Your task to perform on an android device: Open Google Maps and go to "Timeline" Image 0: 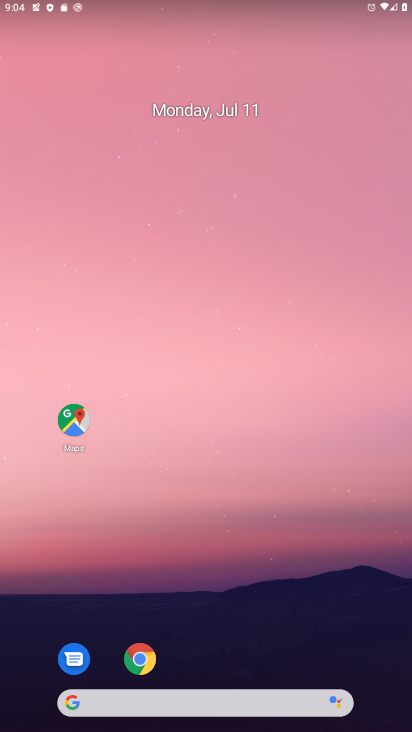
Step 0: click (73, 417)
Your task to perform on an android device: Open Google Maps and go to "Timeline" Image 1: 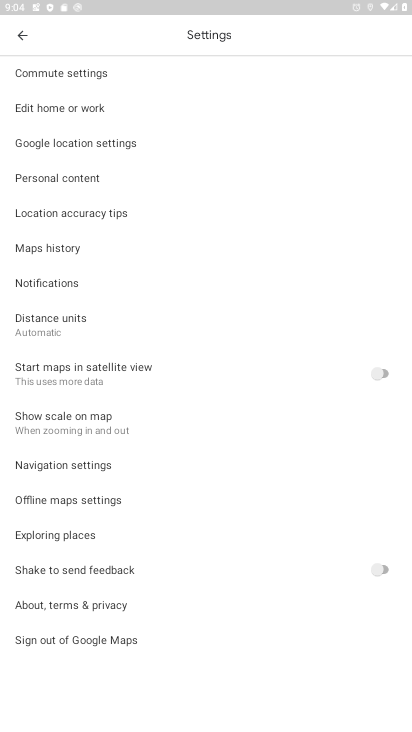
Step 1: click (17, 43)
Your task to perform on an android device: Open Google Maps and go to "Timeline" Image 2: 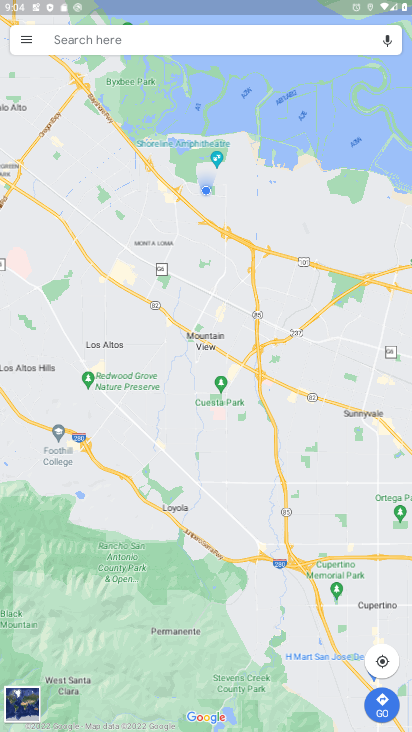
Step 2: click (17, 43)
Your task to perform on an android device: Open Google Maps and go to "Timeline" Image 3: 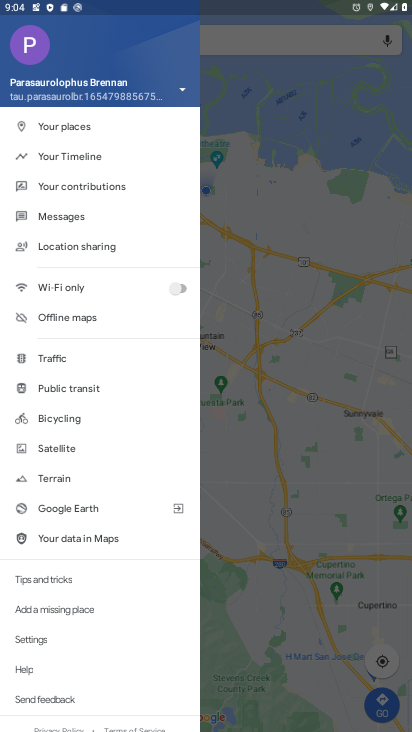
Step 3: click (77, 155)
Your task to perform on an android device: Open Google Maps and go to "Timeline" Image 4: 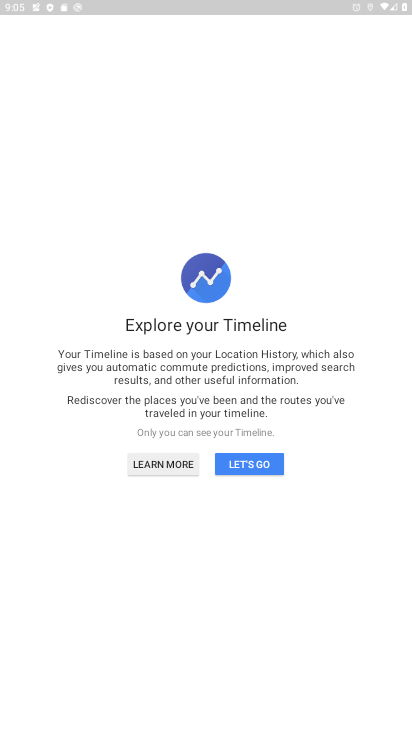
Step 4: click (244, 461)
Your task to perform on an android device: Open Google Maps and go to "Timeline" Image 5: 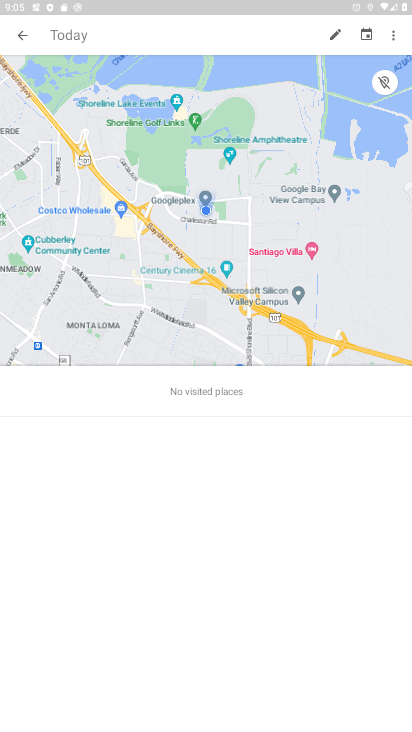
Step 5: task complete